Your task to perform on an android device: Open CNN.com Image 0: 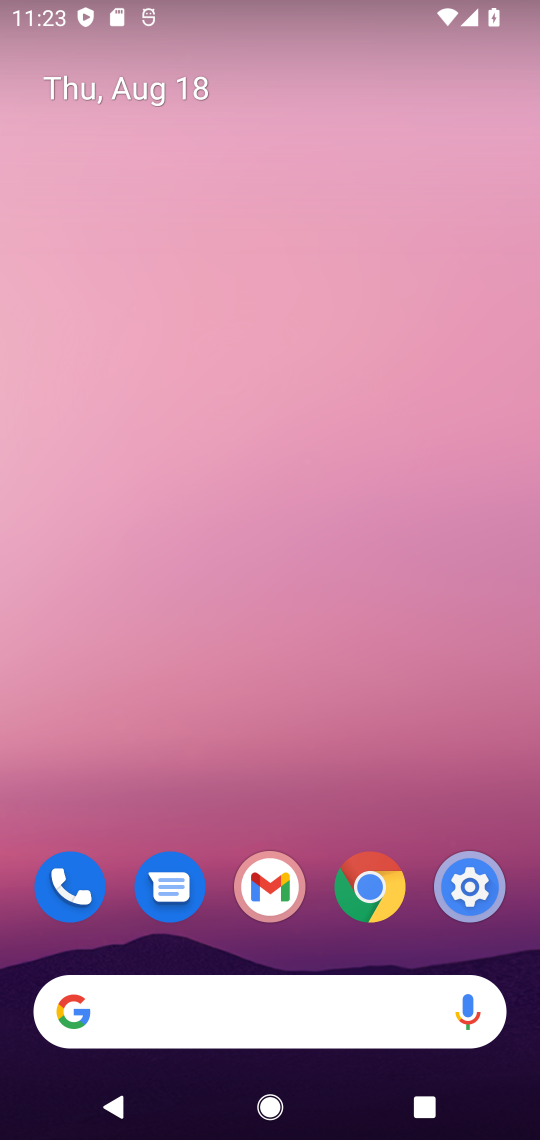
Step 0: click (72, 997)
Your task to perform on an android device: Open CNN.com Image 1: 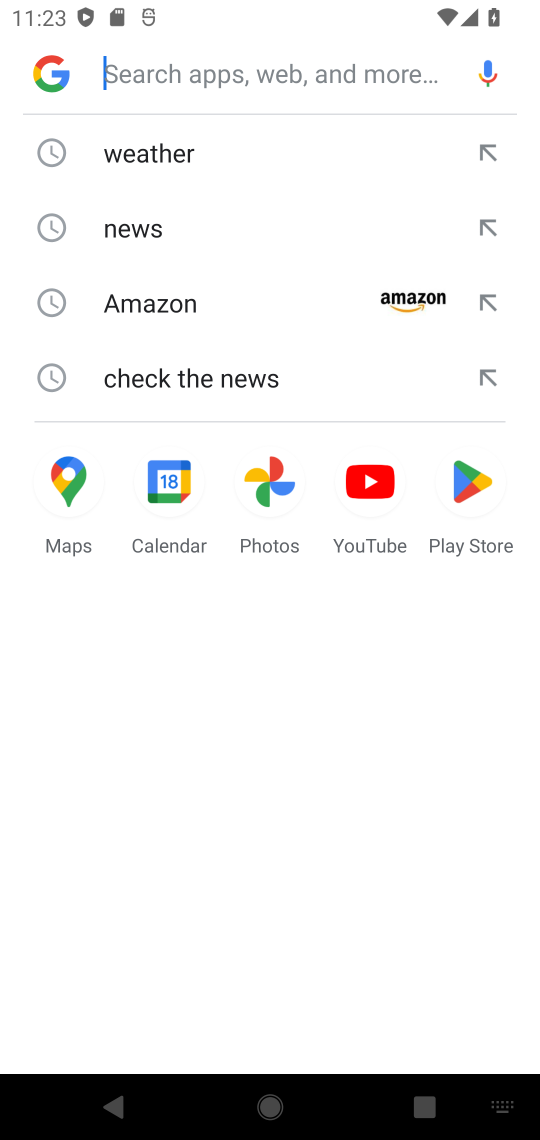
Step 1: type "CNN.com"
Your task to perform on an android device: Open CNN.com Image 2: 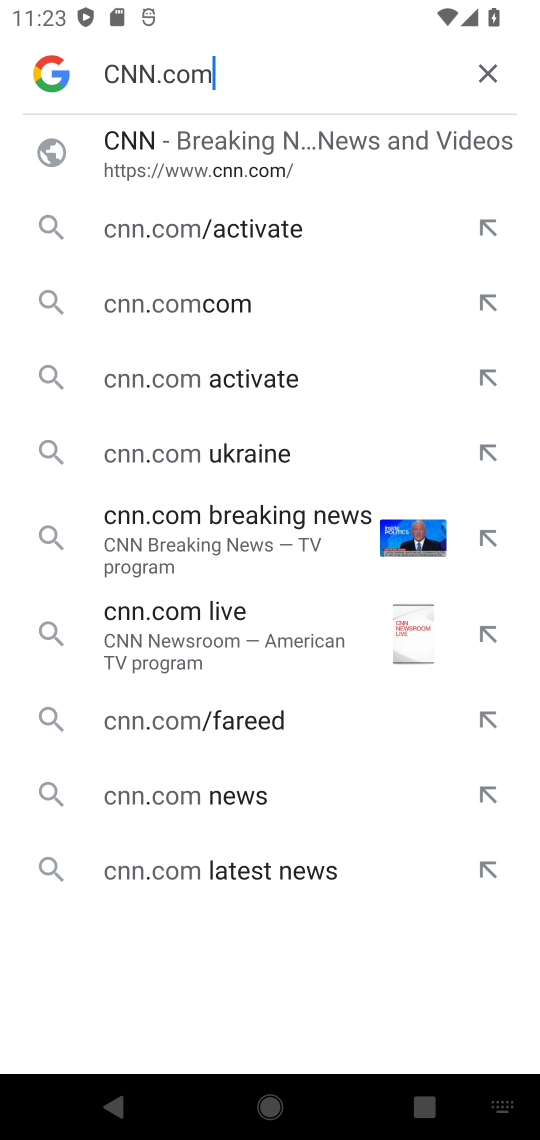
Step 2: click (122, 150)
Your task to perform on an android device: Open CNN.com Image 3: 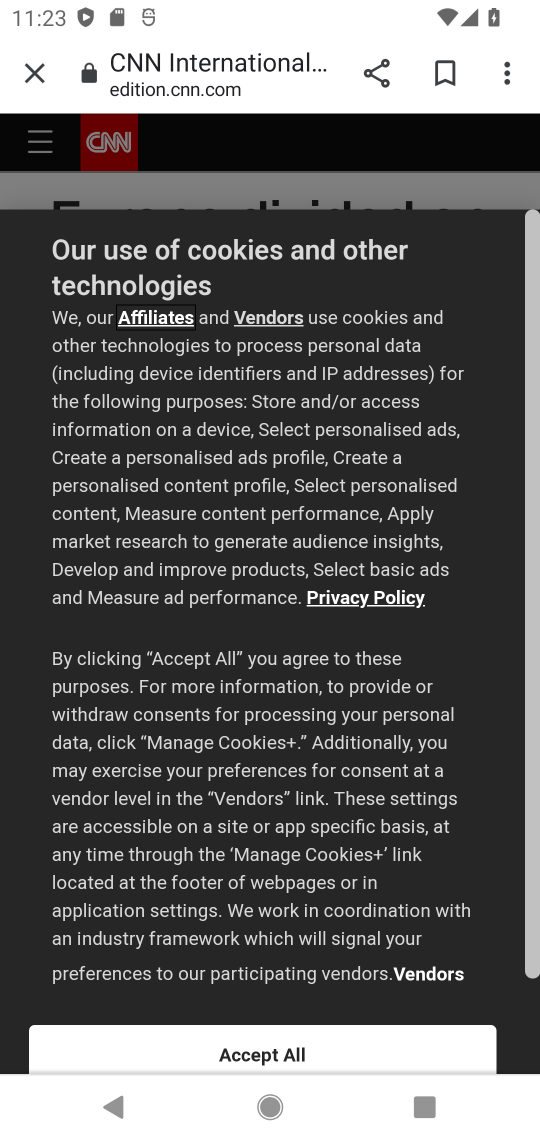
Step 3: task complete